Your task to perform on an android device: check data usage Image 0: 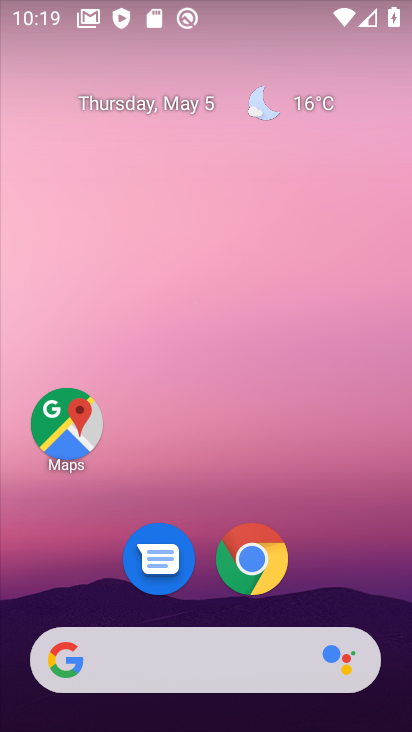
Step 0: drag from (315, 587) to (238, 104)
Your task to perform on an android device: check data usage Image 1: 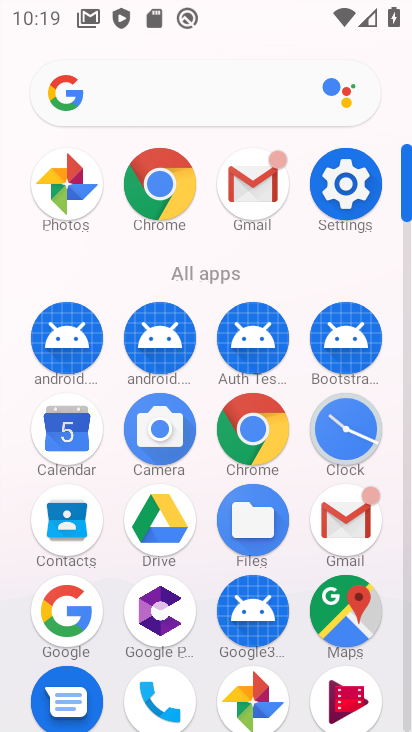
Step 1: click (338, 186)
Your task to perform on an android device: check data usage Image 2: 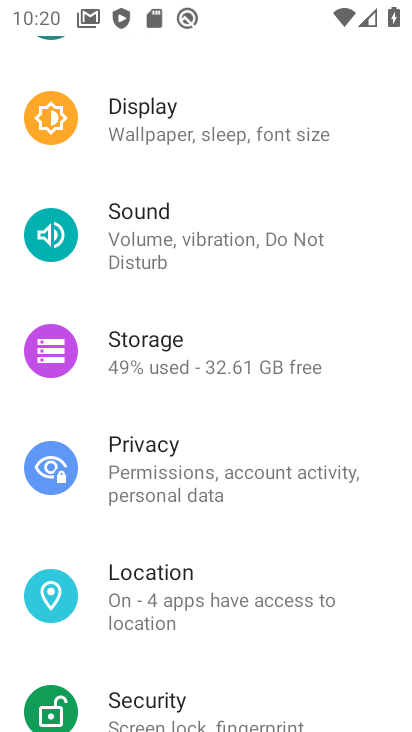
Step 2: drag from (295, 183) to (309, 560)
Your task to perform on an android device: check data usage Image 3: 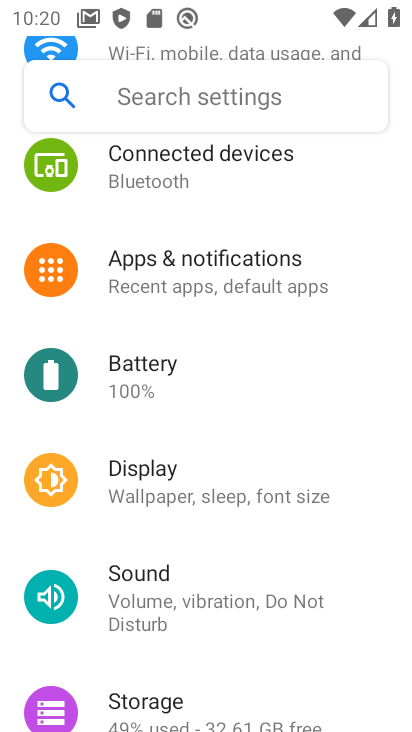
Step 3: drag from (223, 216) to (231, 552)
Your task to perform on an android device: check data usage Image 4: 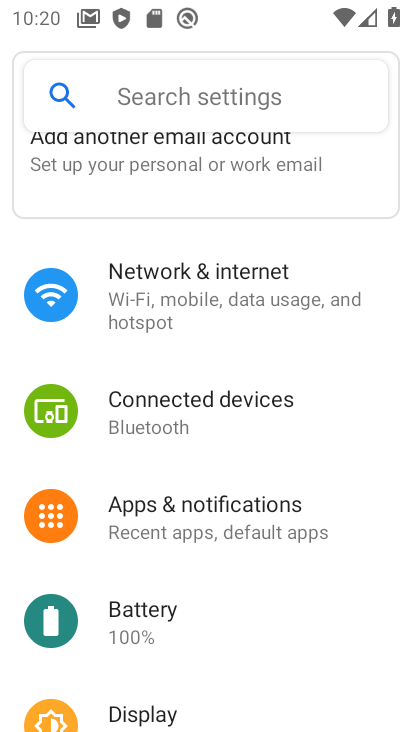
Step 4: click (221, 319)
Your task to perform on an android device: check data usage Image 5: 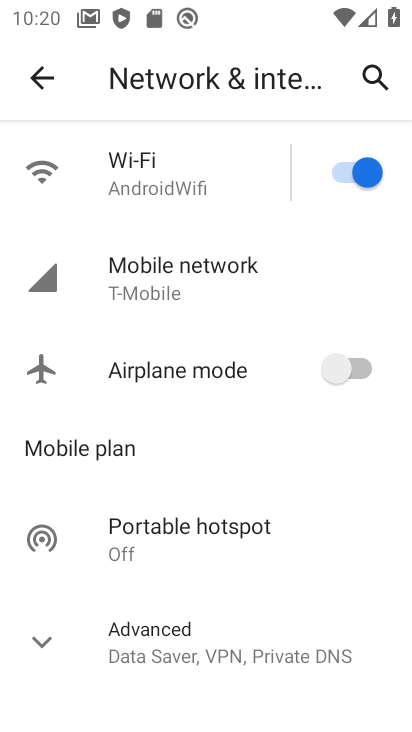
Step 5: click (165, 179)
Your task to perform on an android device: check data usage Image 6: 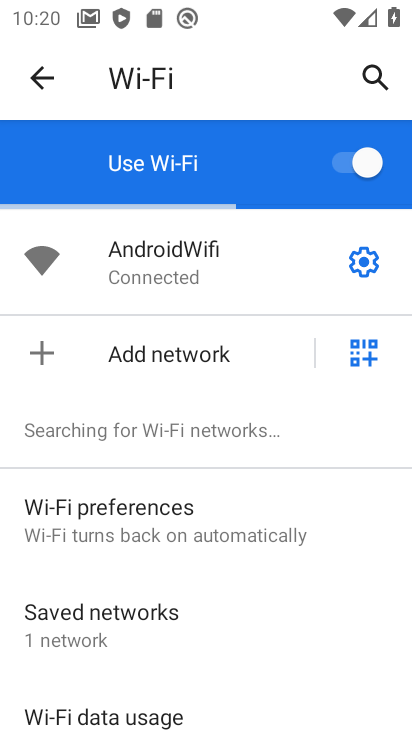
Step 6: drag from (290, 697) to (238, 290)
Your task to perform on an android device: check data usage Image 7: 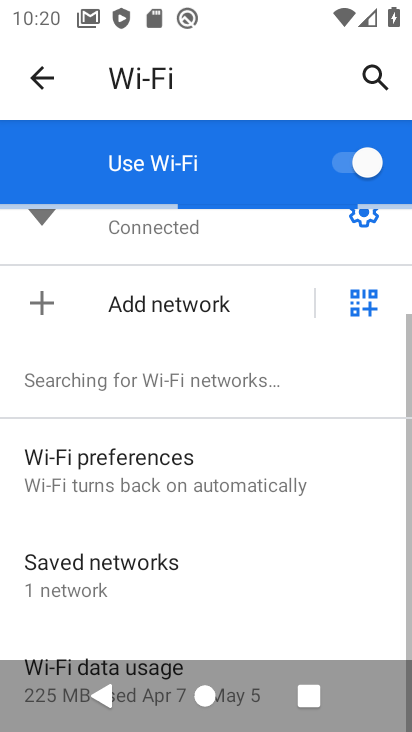
Step 7: drag from (283, 601) to (243, 299)
Your task to perform on an android device: check data usage Image 8: 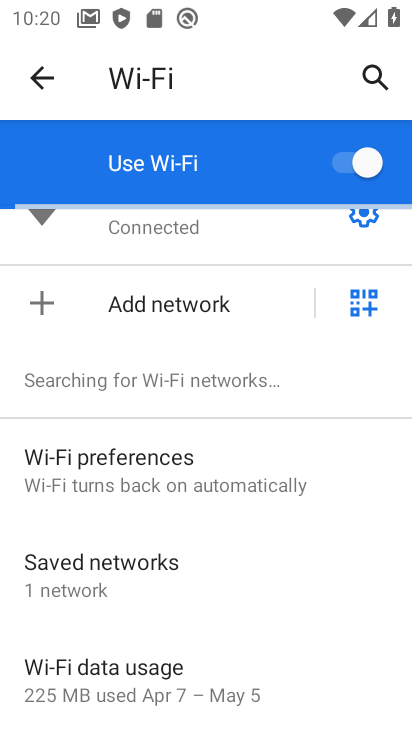
Step 8: click (247, 671)
Your task to perform on an android device: check data usage Image 9: 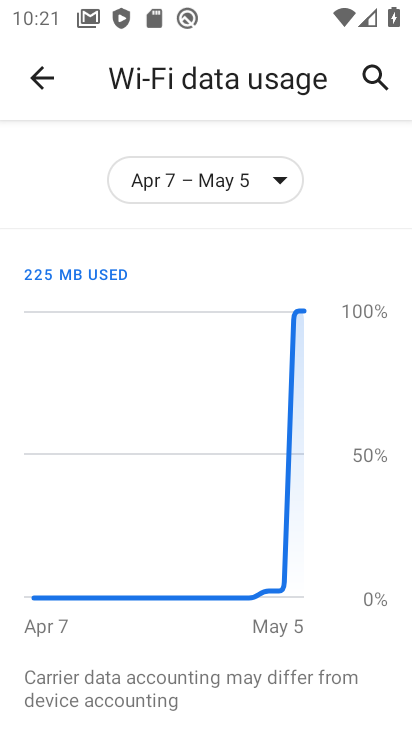
Step 9: task complete